Your task to perform on an android device: Go to Google maps Image 0: 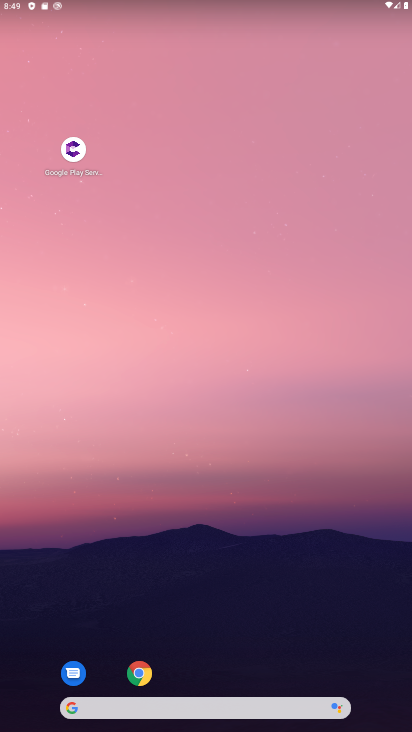
Step 0: drag from (263, 667) to (240, 177)
Your task to perform on an android device: Go to Google maps Image 1: 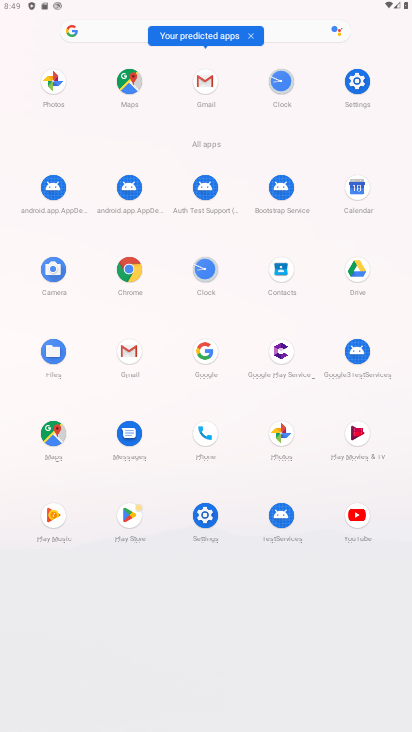
Step 1: click (133, 84)
Your task to perform on an android device: Go to Google maps Image 2: 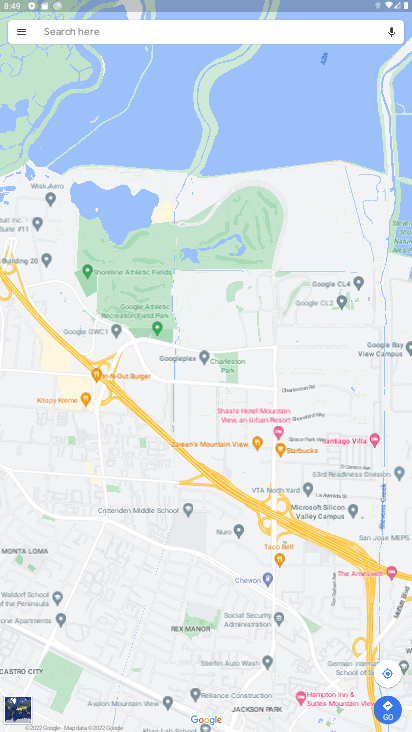
Step 2: task complete